Your task to perform on an android device: toggle location history Image 0: 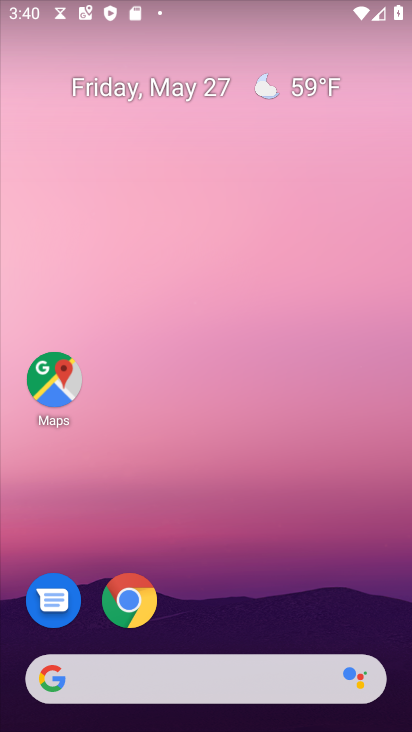
Step 0: drag from (269, 567) to (223, 217)
Your task to perform on an android device: toggle location history Image 1: 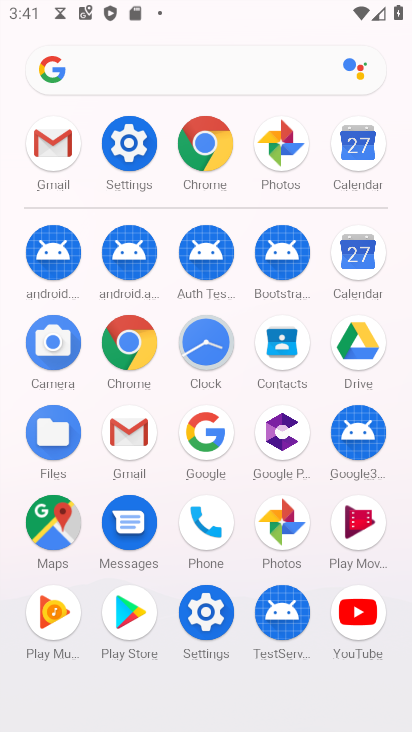
Step 1: click (130, 142)
Your task to perform on an android device: toggle location history Image 2: 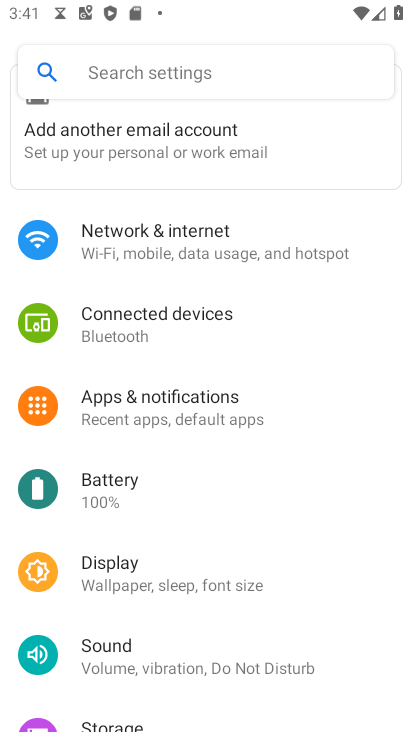
Step 2: drag from (156, 487) to (161, 353)
Your task to perform on an android device: toggle location history Image 3: 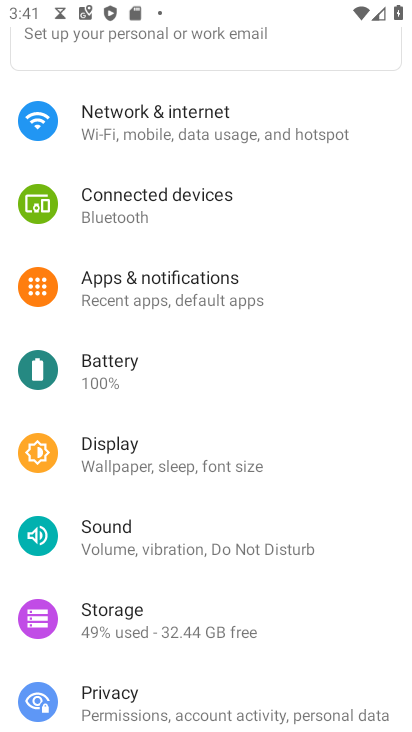
Step 3: drag from (164, 491) to (179, 383)
Your task to perform on an android device: toggle location history Image 4: 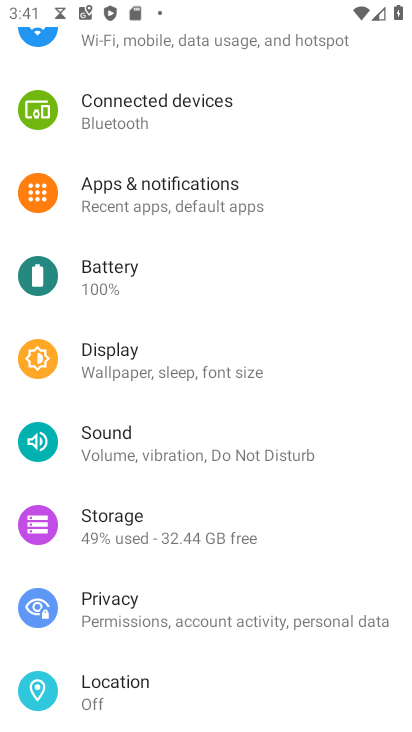
Step 4: drag from (153, 479) to (161, 377)
Your task to perform on an android device: toggle location history Image 5: 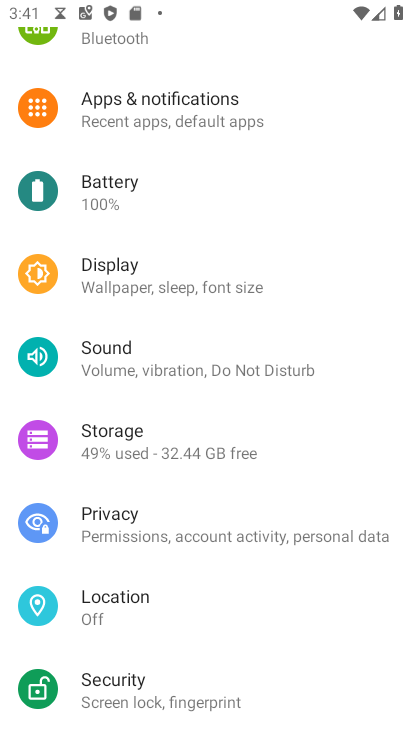
Step 5: drag from (144, 559) to (160, 432)
Your task to perform on an android device: toggle location history Image 6: 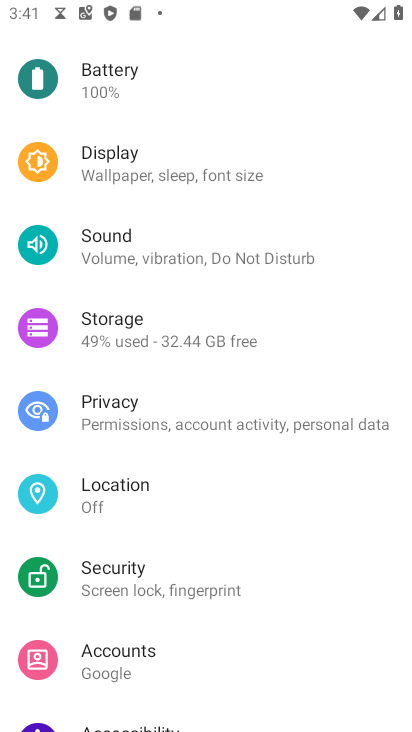
Step 6: click (121, 482)
Your task to perform on an android device: toggle location history Image 7: 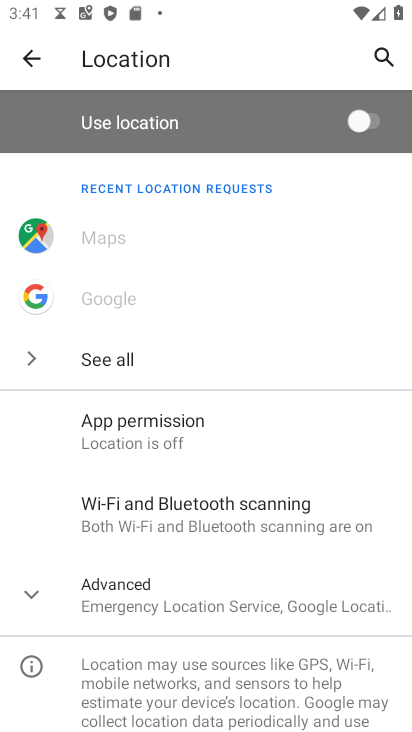
Step 7: click (134, 592)
Your task to perform on an android device: toggle location history Image 8: 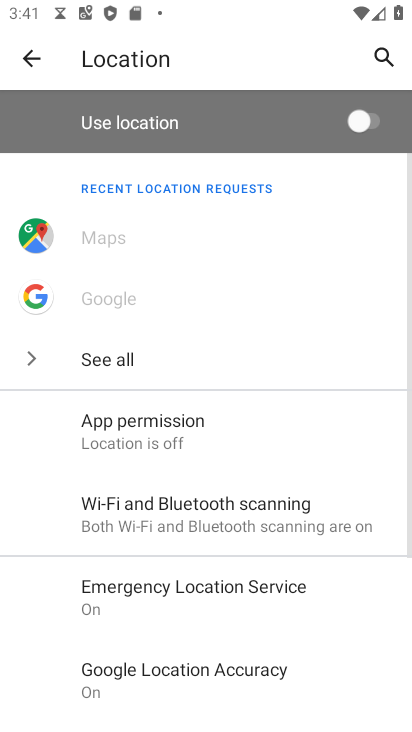
Step 8: drag from (143, 618) to (177, 495)
Your task to perform on an android device: toggle location history Image 9: 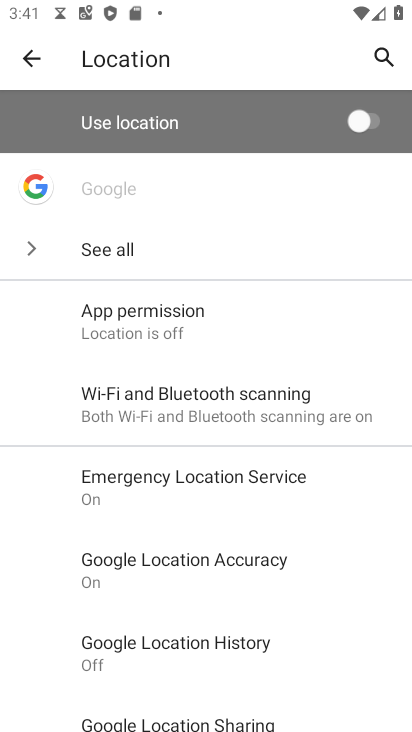
Step 9: click (239, 638)
Your task to perform on an android device: toggle location history Image 10: 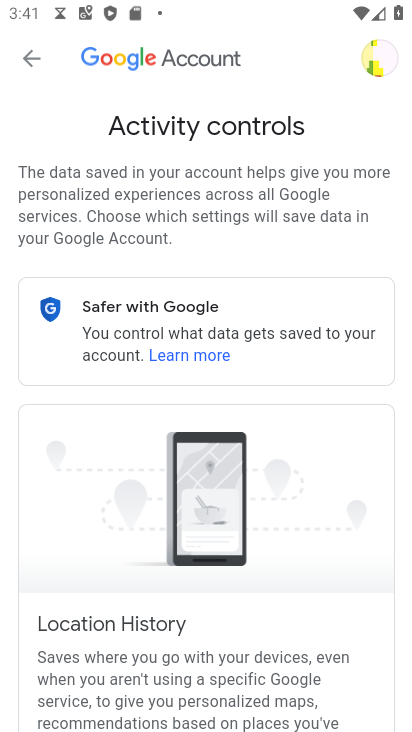
Step 10: drag from (263, 599) to (280, 416)
Your task to perform on an android device: toggle location history Image 11: 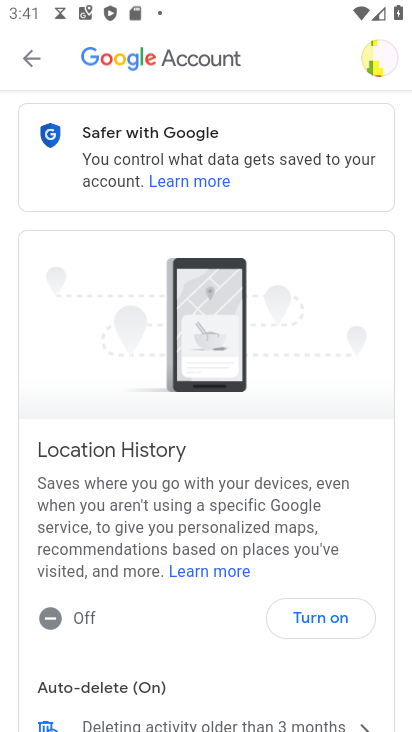
Step 11: click (319, 615)
Your task to perform on an android device: toggle location history Image 12: 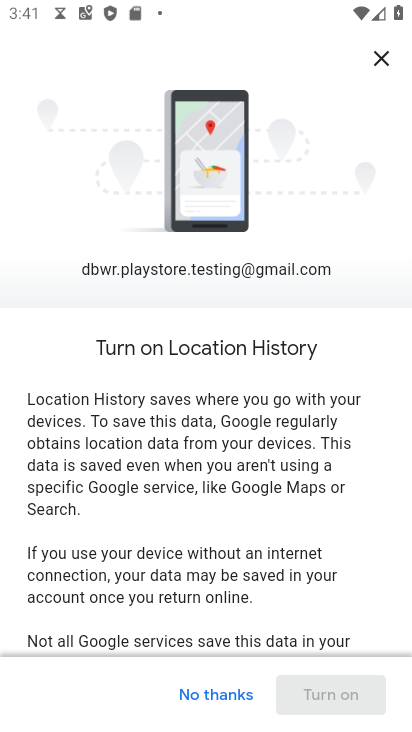
Step 12: drag from (282, 614) to (299, 430)
Your task to perform on an android device: toggle location history Image 13: 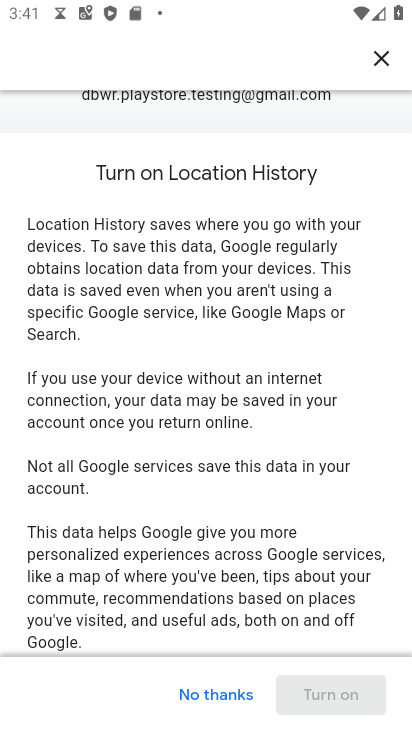
Step 13: drag from (243, 590) to (261, 522)
Your task to perform on an android device: toggle location history Image 14: 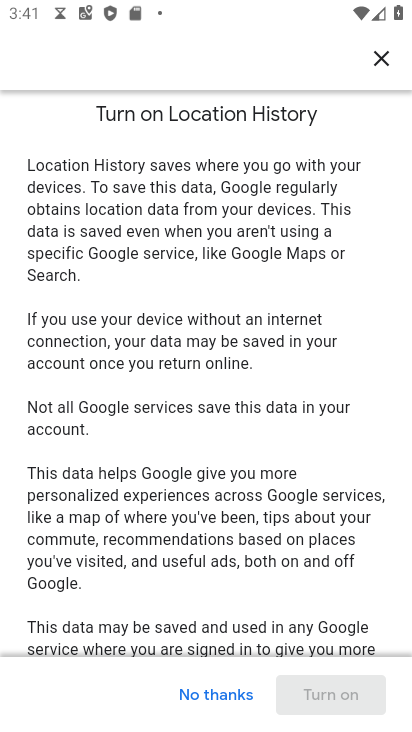
Step 14: drag from (237, 597) to (249, 519)
Your task to perform on an android device: toggle location history Image 15: 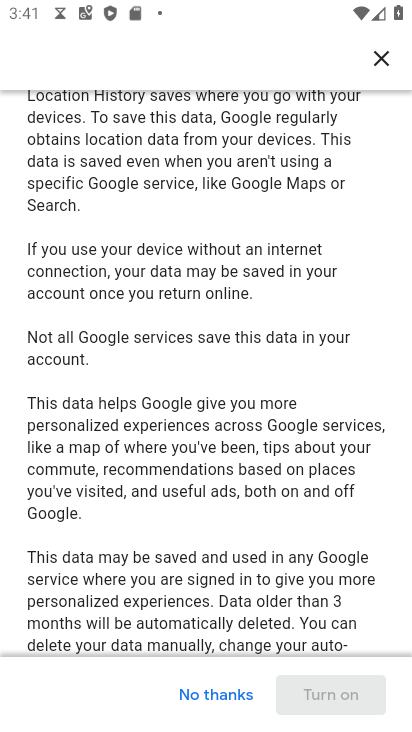
Step 15: drag from (225, 580) to (253, 507)
Your task to perform on an android device: toggle location history Image 16: 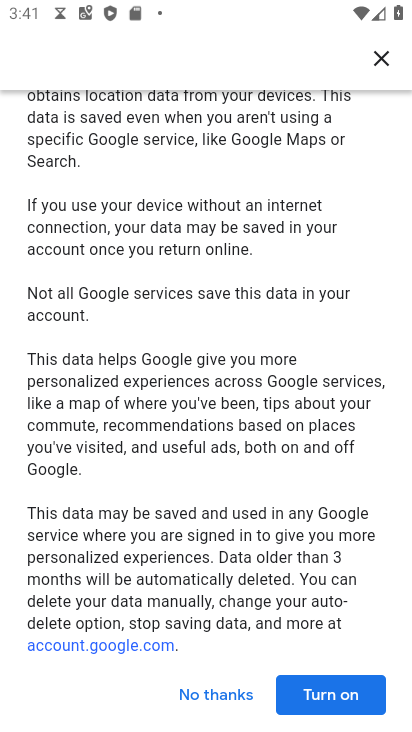
Step 16: click (320, 690)
Your task to perform on an android device: toggle location history Image 17: 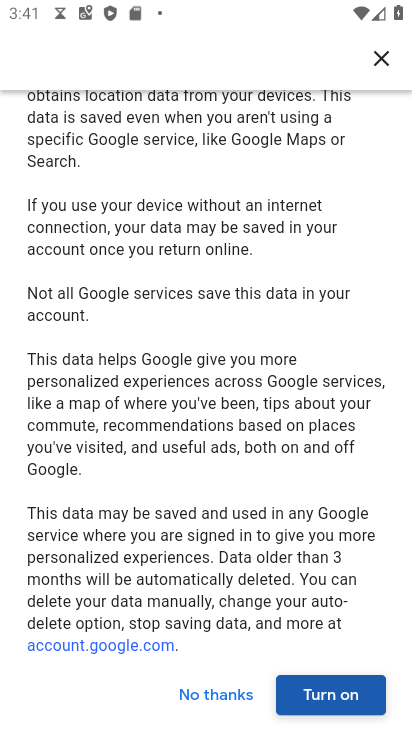
Step 17: click (320, 690)
Your task to perform on an android device: toggle location history Image 18: 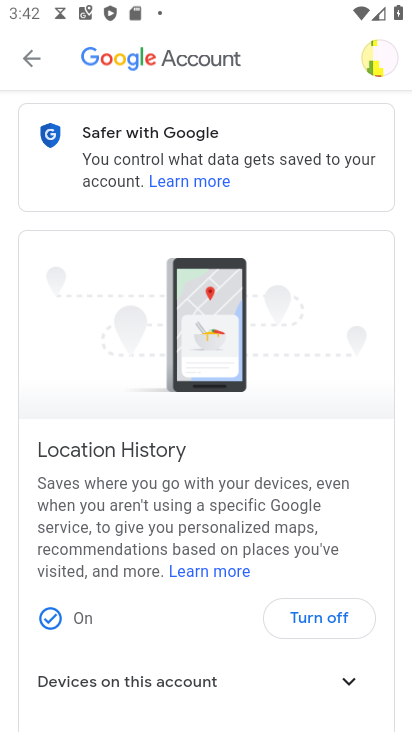
Step 18: task complete